Your task to perform on an android device: turn on the 12-hour format for clock Image 0: 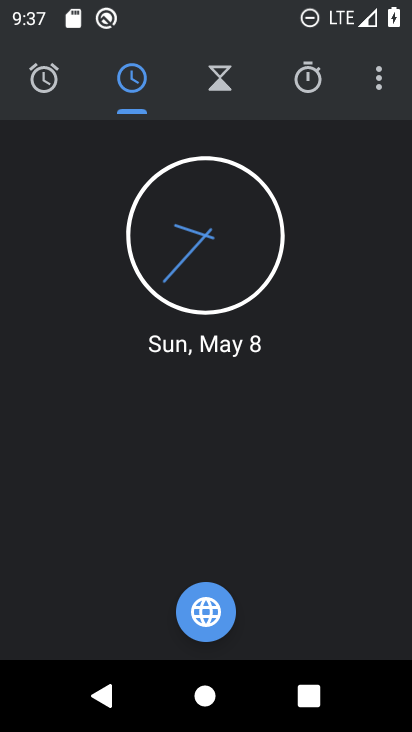
Step 0: click (378, 78)
Your task to perform on an android device: turn on the 12-hour format for clock Image 1: 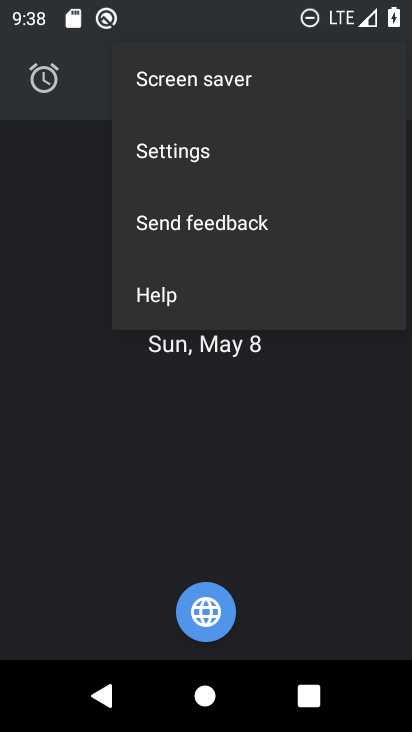
Step 1: click (290, 151)
Your task to perform on an android device: turn on the 12-hour format for clock Image 2: 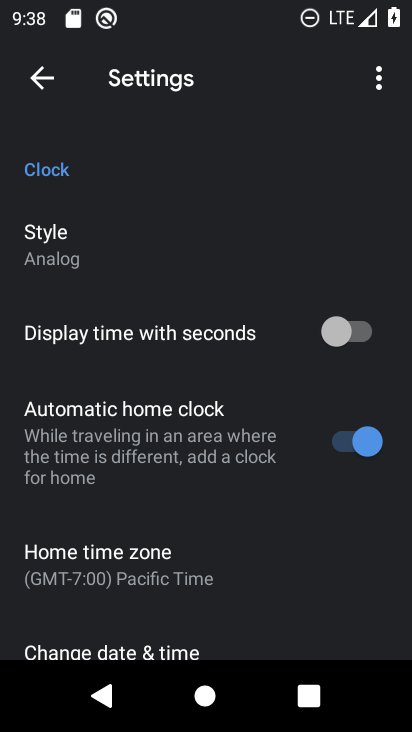
Step 2: click (250, 652)
Your task to perform on an android device: turn on the 12-hour format for clock Image 3: 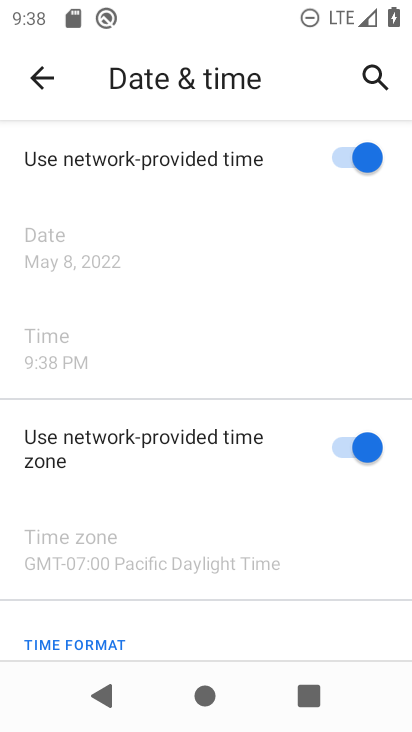
Step 3: task complete